Your task to perform on an android device: turn on notifications settings in the gmail app Image 0: 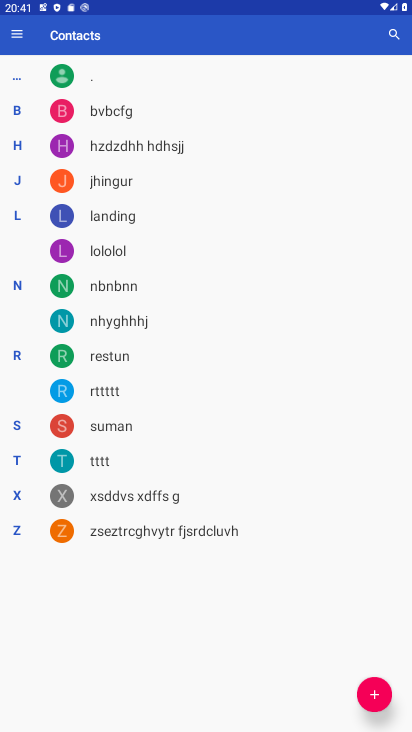
Step 0: press back button
Your task to perform on an android device: turn on notifications settings in the gmail app Image 1: 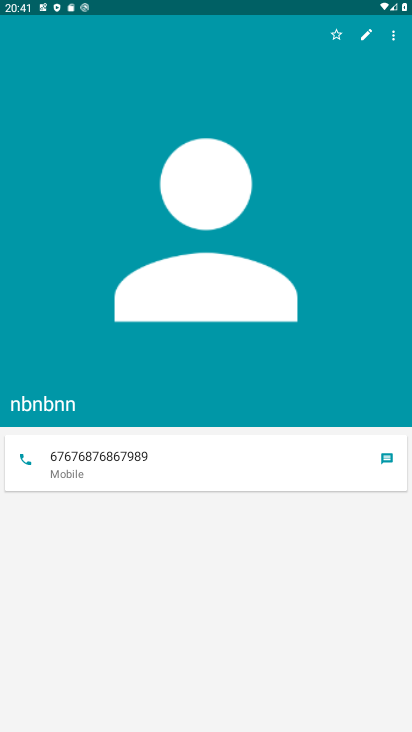
Step 1: press home button
Your task to perform on an android device: turn on notifications settings in the gmail app Image 2: 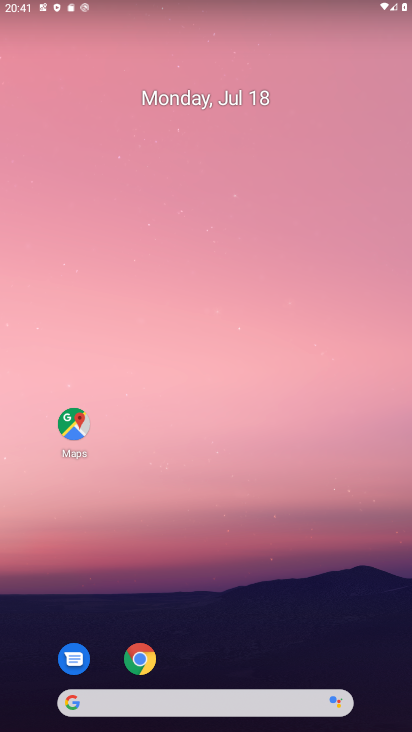
Step 2: drag from (197, 559) to (130, 4)
Your task to perform on an android device: turn on notifications settings in the gmail app Image 3: 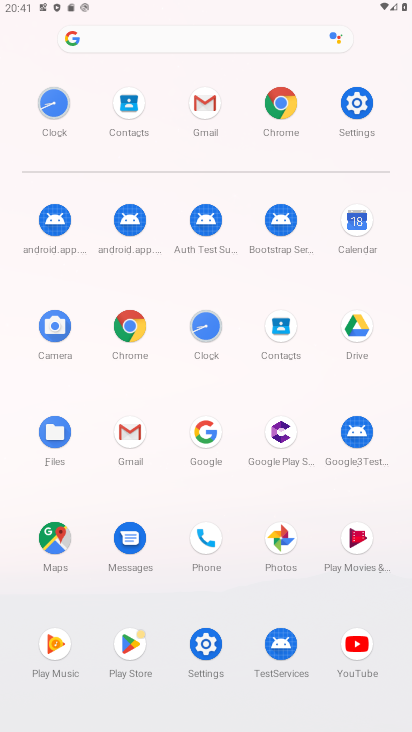
Step 3: click (129, 427)
Your task to perform on an android device: turn on notifications settings in the gmail app Image 4: 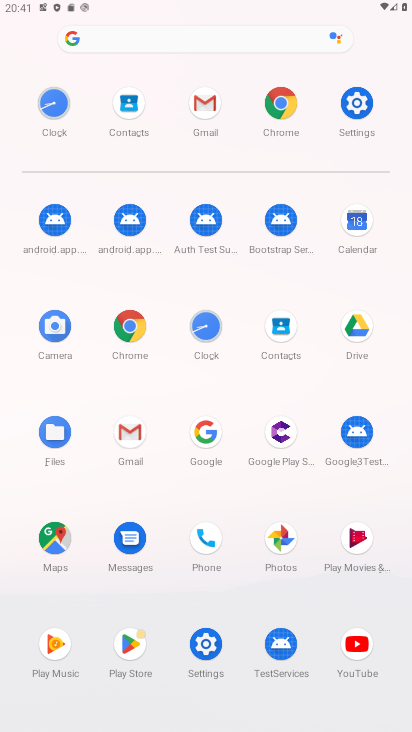
Step 4: click (128, 426)
Your task to perform on an android device: turn on notifications settings in the gmail app Image 5: 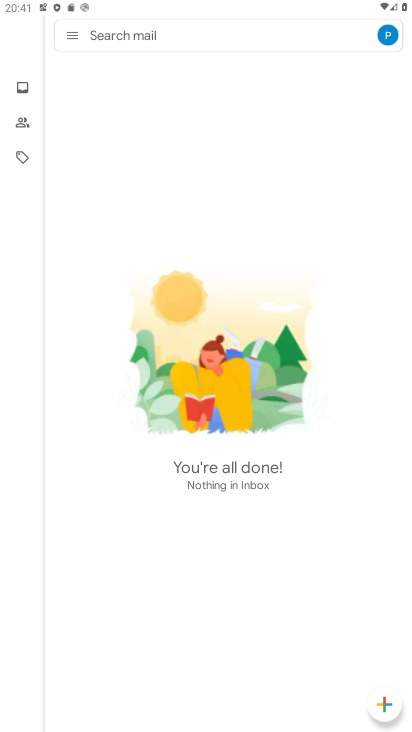
Step 5: click (127, 426)
Your task to perform on an android device: turn on notifications settings in the gmail app Image 6: 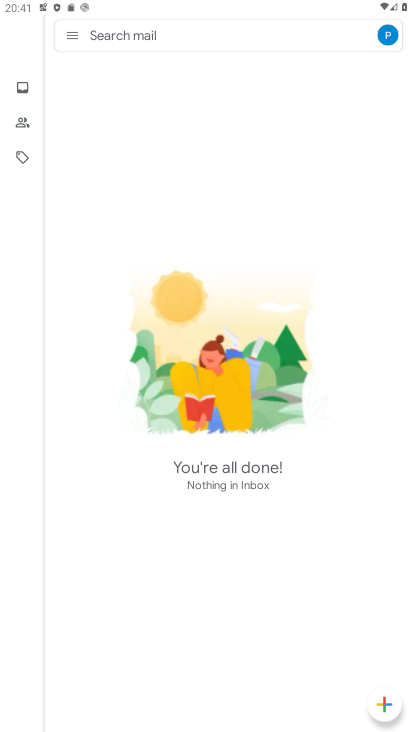
Step 6: click (126, 427)
Your task to perform on an android device: turn on notifications settings in the gmail app Image 7: 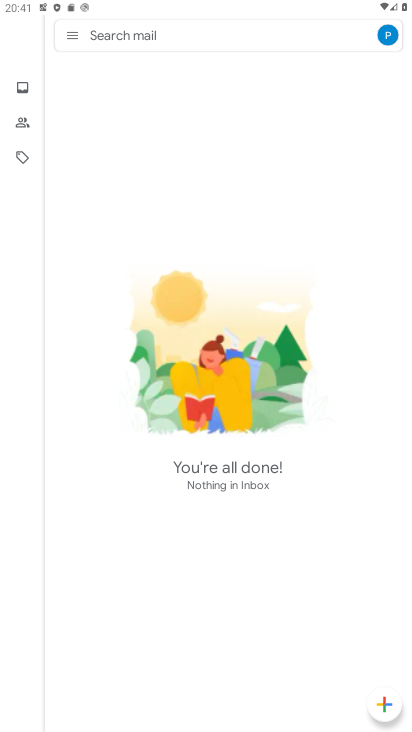
Step 7: drag from (72, 36) to (93, 339)
Your task to perform on an android device: turn on notifications settings in the gmail app Image 8: 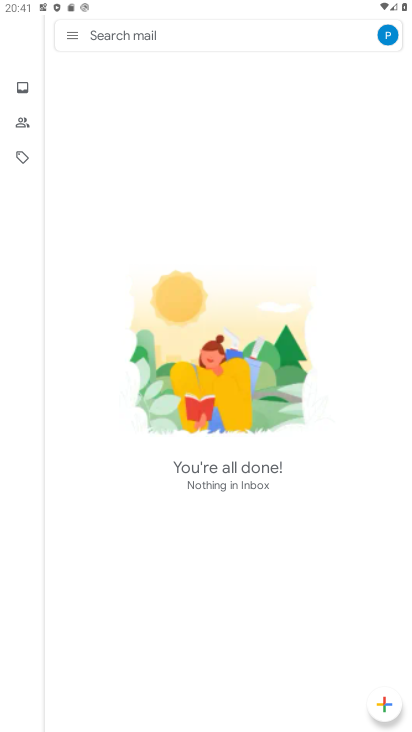
Step 8: drag from (74, 27) to (90, 238)
Your task to perform on an android device: turn on notifications settings in the gmail app Image 9: 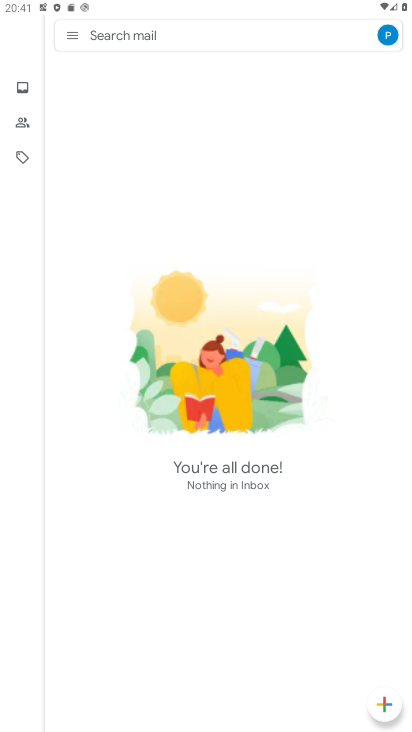
Step 9: click (65, 53)
Your task to perform on an android device: turn on notifications settings in the gmail app Image 10: 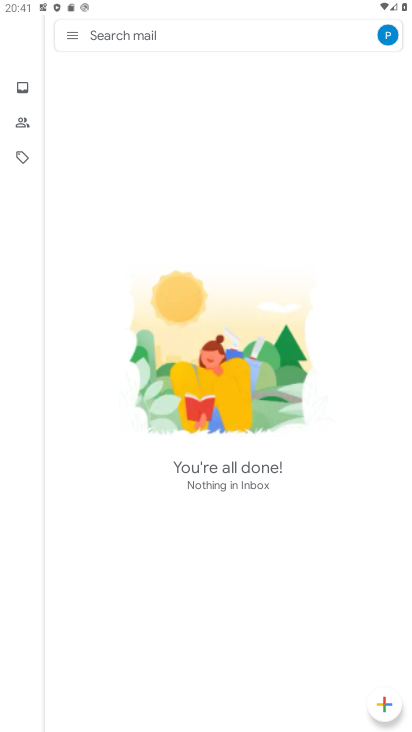
Step 10: click (73, 38)
Your task to perform on an android device: turn on notifications settings in the gmail app Image 11: 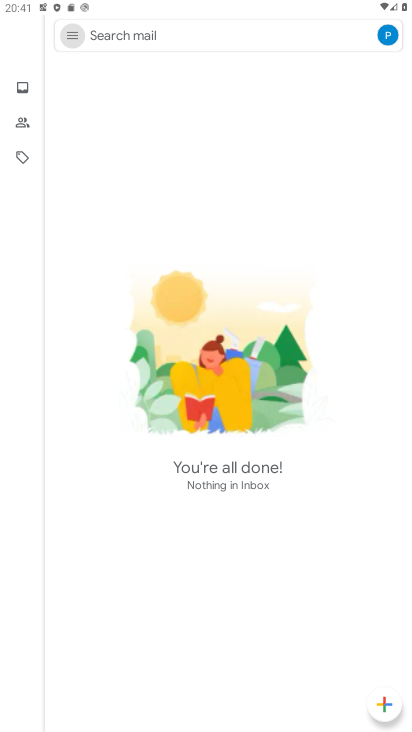
Step 11: click (73, 38)
Your task to perform on an android device: turn on notifications settings in the gmail app Image 12: 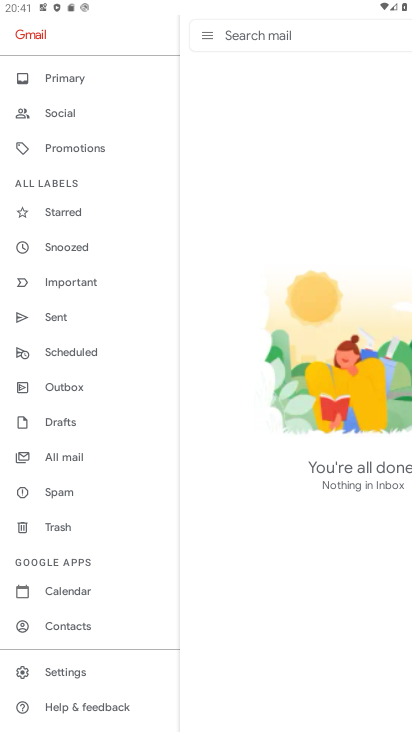
Step 12: click (80, 677)
Your task to perform on an android device: turn on notifications settings in the gmail app Image 13: 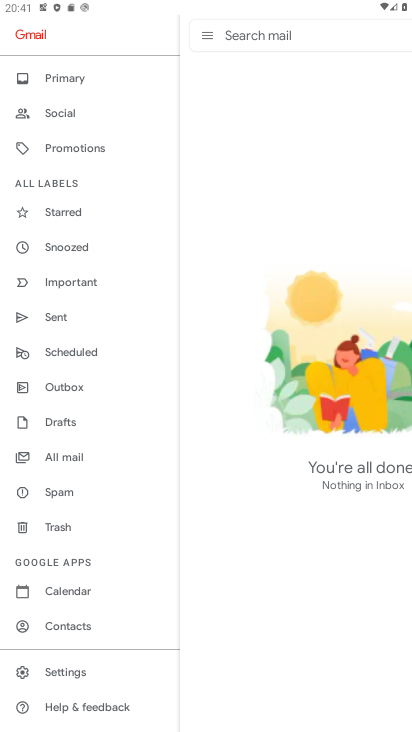
Step 13: click (80, 678)
Your task to perform on an android device: turn on notifications settings in the gmail app Image 14: 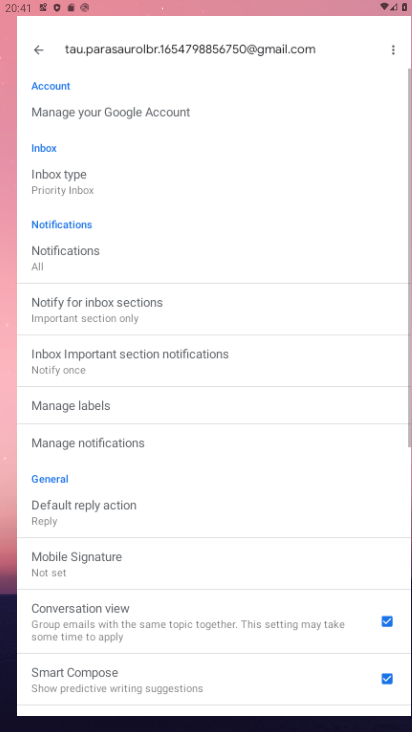
Step 14: click (80, 678)
Your task to perform on an android device: turn on notifications settings in the gmail app Image 15: 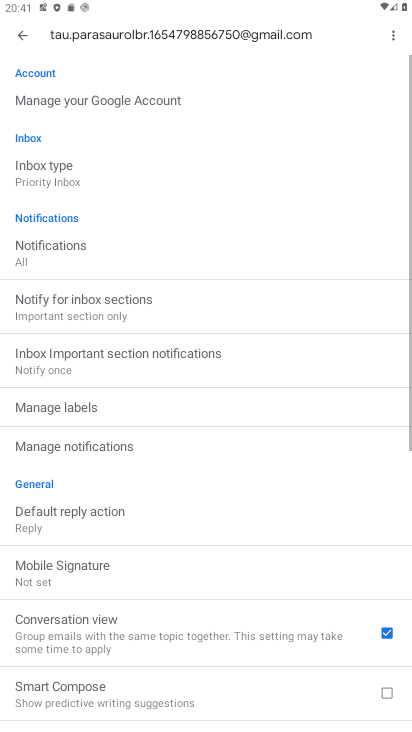
Step 15: drag from (117, 325) to (102, 131)
Your task to perform on an android device: turn on notifications settings in the gmail app Image 16: 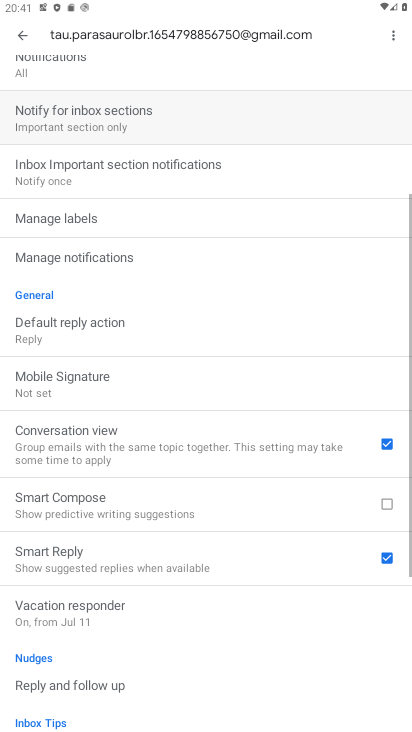
Step 16: drag from (142, 535) to (132, 237)
Your task to perform on an android device: turn on notifications settings in the gmail app Image 17: 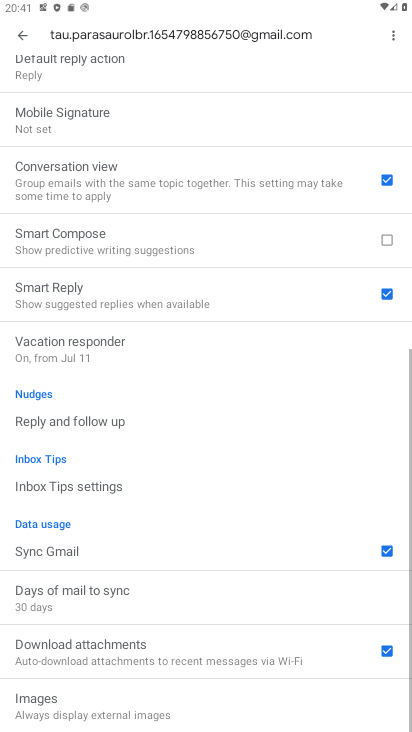
Step 17: drag from (157, 467) to (199, 123)
Your task to perform on an android device: turn on notifications settings in the gmail app Image 18: 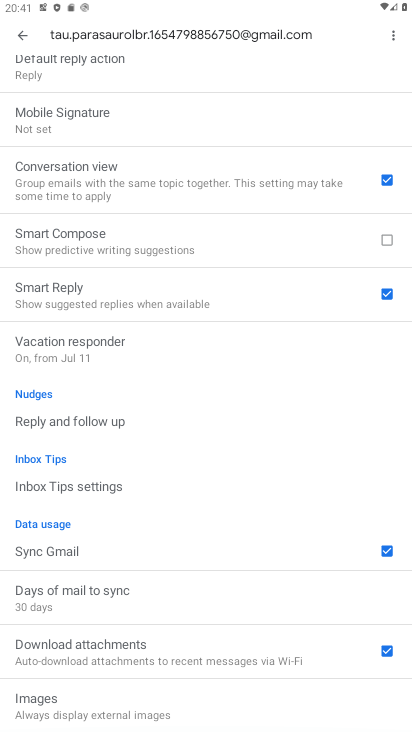
Step 18: drag from (115, 130) to (115, 16)
Your task to perform on an android device: turn on notifications settings in the gmail app Image 19: 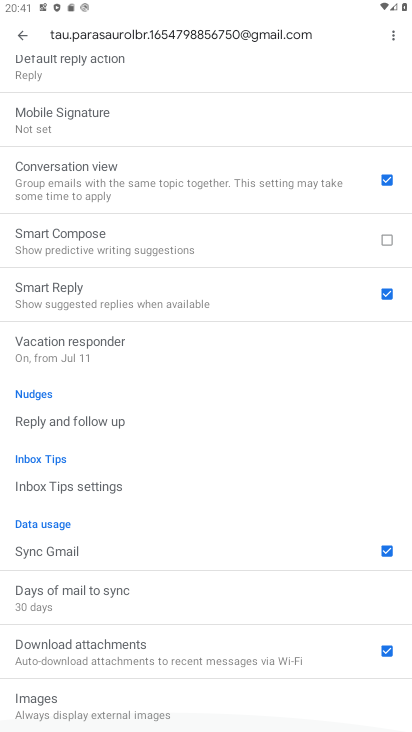
Step 19: drag from (136, 414) to (121, 166)
Your task to perform on an android device: turn on notifications settings in the gmail app Image 20: 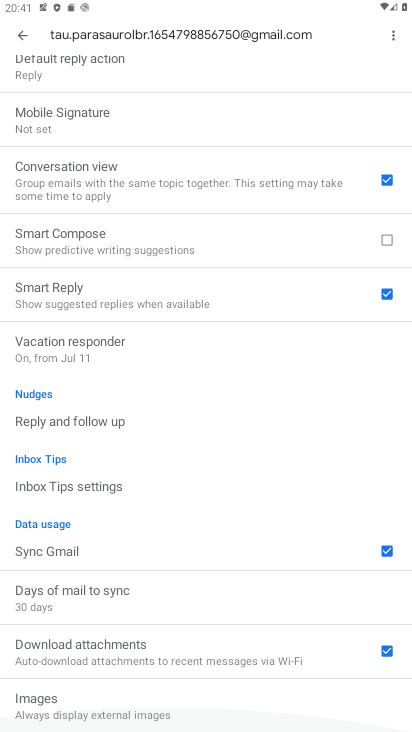
Step 20: drag from (158, 397) to (158, 248)
Your task to perform on an android device: turn on notifications settings in the gmail app Image 21: 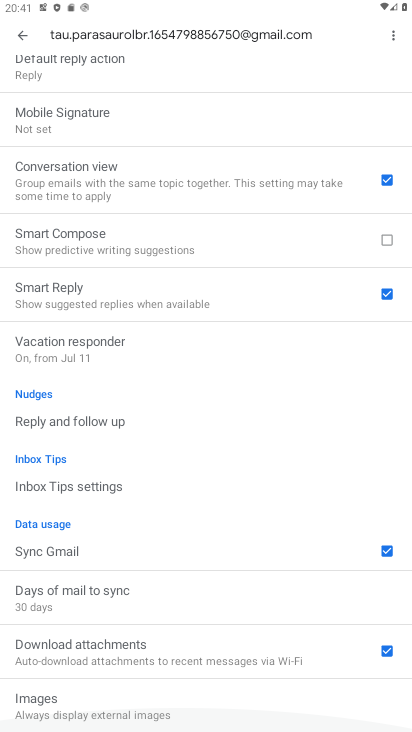
Step 21: drag from (156, 334) to (142, 132)
Your task to perform on an android device: turn on notifications settings in the gmail app Image 22: 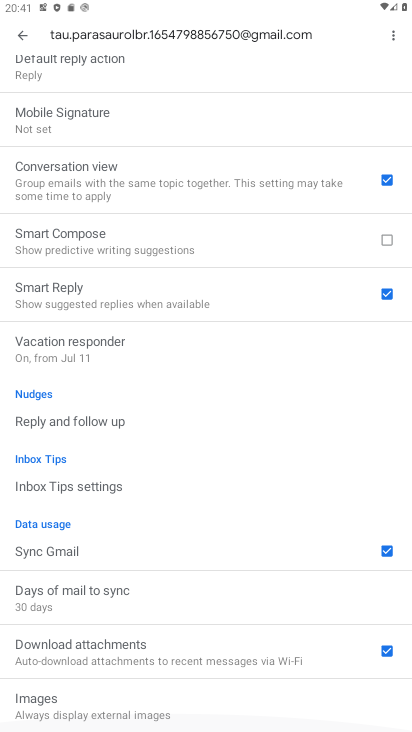
Step 22: drag from (174, 526) to (194, 152)
Your task to perform on an android device: turn on notifications settings in the gmail app Image 23: 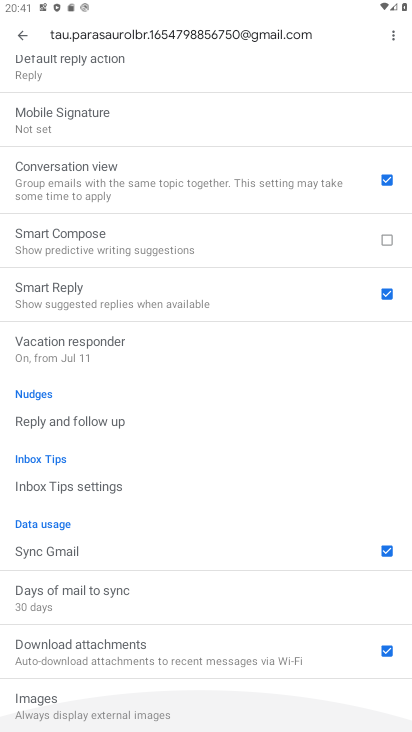
Step 23: drag from (173, 513) to (145, 81)
Your task to perform on an android device: turn on notifications settings in the gmail app Image 24: 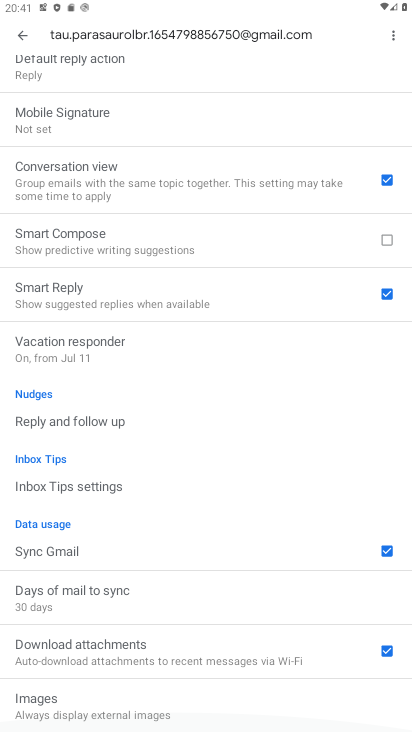
Step 24: drag from (152, 416) to (151, 94)
Your task to perform on an android device: turn on notifications settings in the gmail app Image 25: 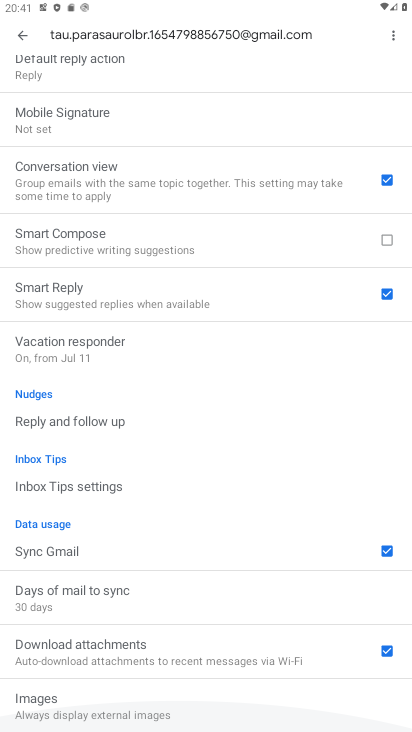
Step 25: drag from (140, 469) to (107, 102)
Your task to perform on an android device: turn on notifications settings in the gmail app Image 26: 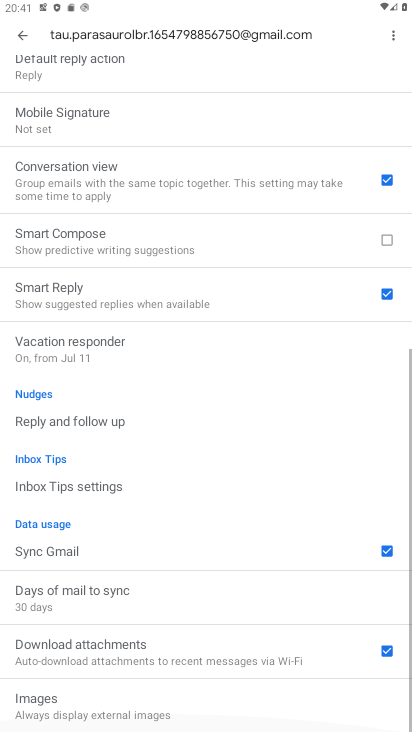
Step 26: drag from (180, 380) to (168, 241)
Your task to perform on an android device: turn on notifications settings in the gmail app Image 27: 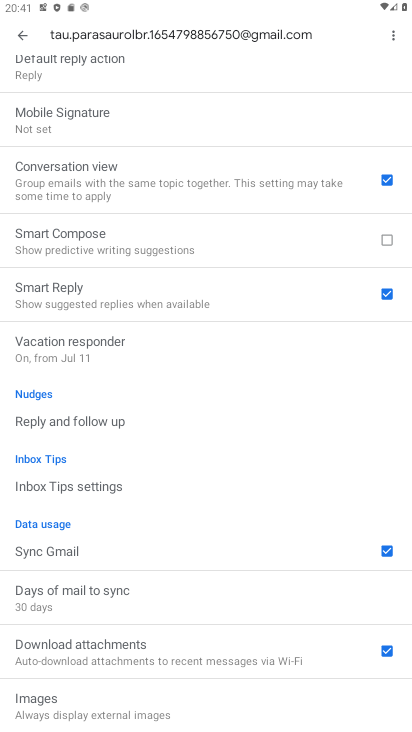
Step 27: drag from (127, 546) to (127, 286)
Your task to perform on an android device: turn on notifications settings in the gmail app Image 28: 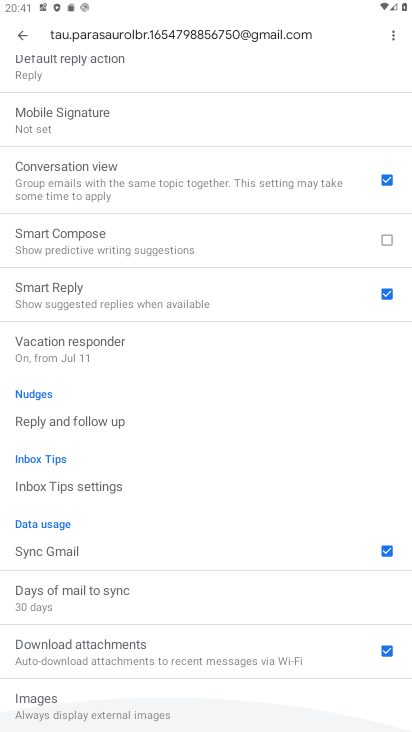
Step 28: drag from (207, 420) to (174, 211)
Your task to perform on an android device: turn on notifications settings in the gmail app Image 29: 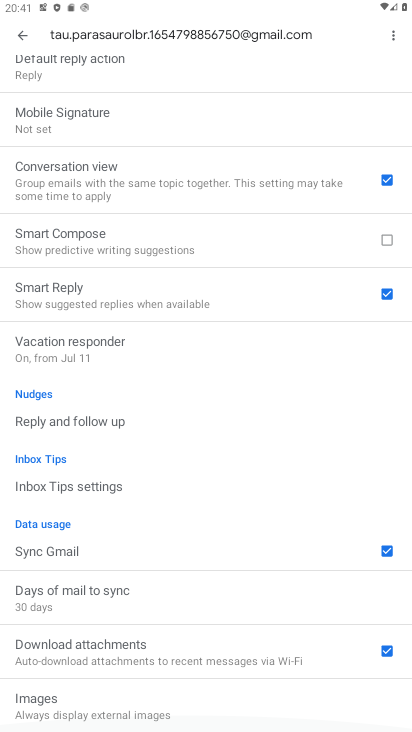
Step 29: drag from (164, 197) to (158, 34)
Your task to perform on an android device: turn on notifications settings in the gmail app Image 30: 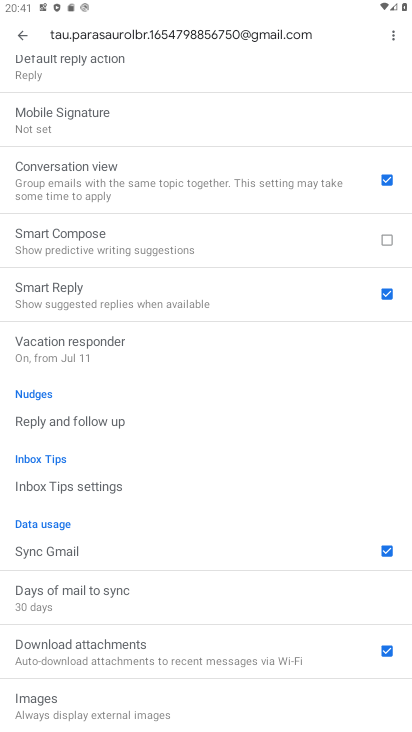
Step 30: drag from (121, 438) to (125, 540)
Your task to perform on an android device: turn on notifications settings in the gmail app Image 31: 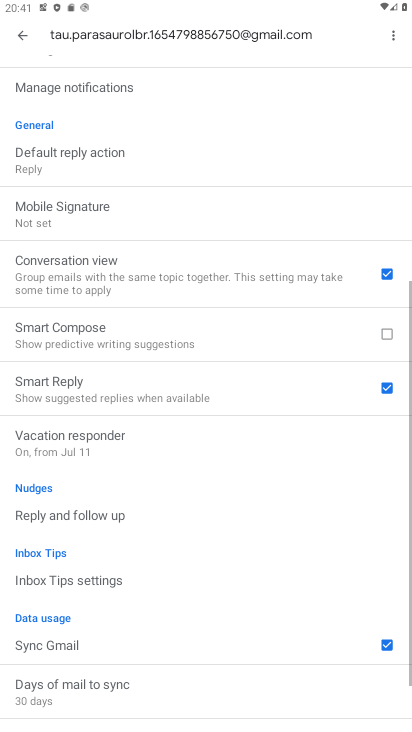
Step 31: drag from (113, 276) to (178, 555)
Your task to perform on an android device: turn on notifications settings in the gmail app Image 32: 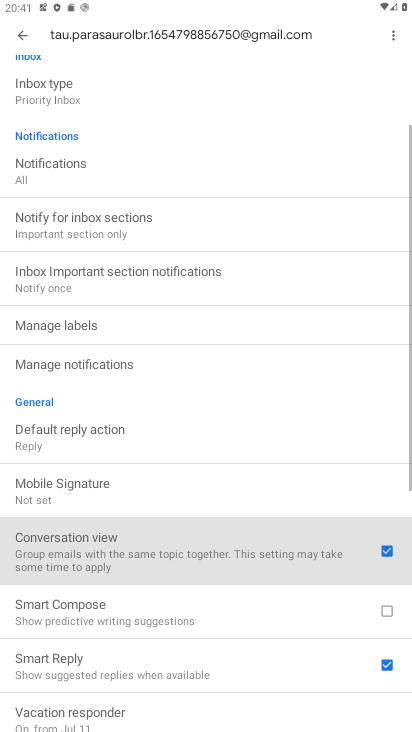
Step 32: drag from (189, 310) to (197, 577)
Your task to perform on an android device: turn on notifications settings in the gmail app Image 33: 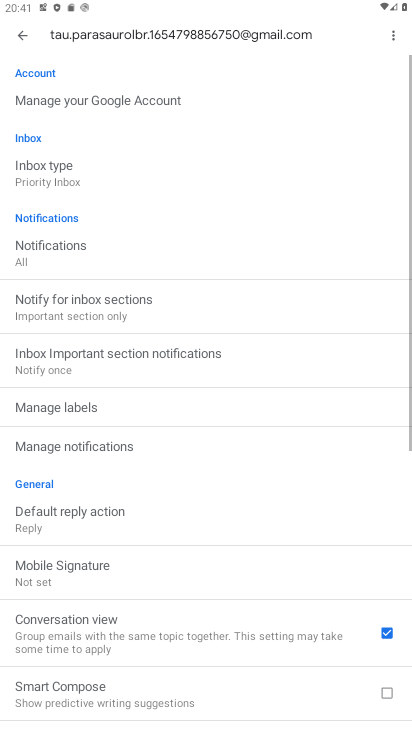
Step 33: drag from (196, 588) to (79, 162)
Your task to perform on an android device: turn on notifications settings in the gmail app Image 34: 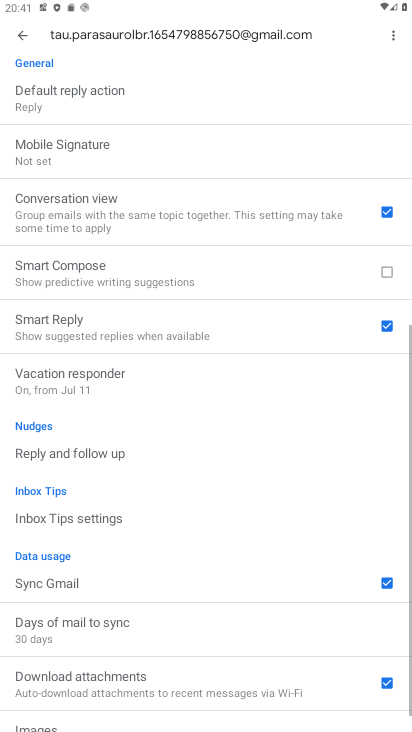
Step 34: drag from (156, 502) to (163, 156)
Your task to perform on an android device: turn on notifications settings in the gmail app Image 35: 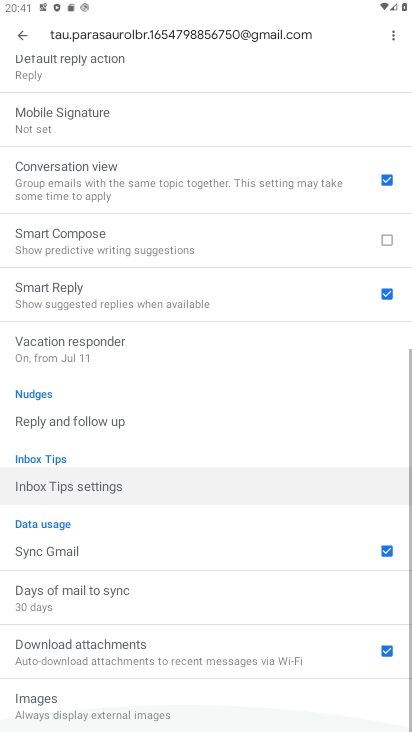
Step 35: drag from (227, 427) to (220, 229)
Your task to perform on an android device: turn on notifications settings in the gmail app Image 36: 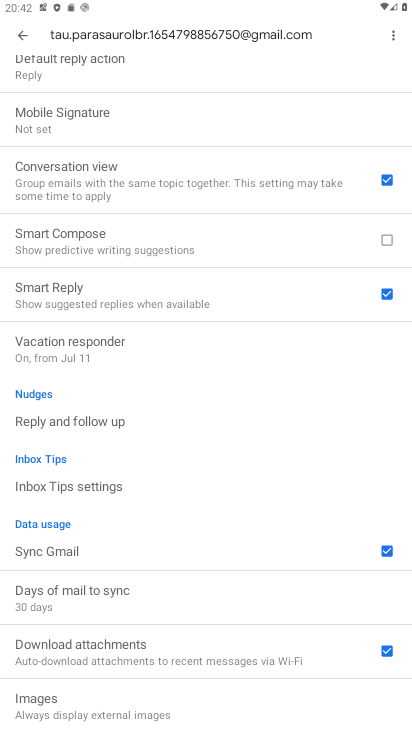
Step 36: drag from (147, 544) to (107, 286)
Your task to perform on an android device: turn on notifications settings in the gmail app Image 37: 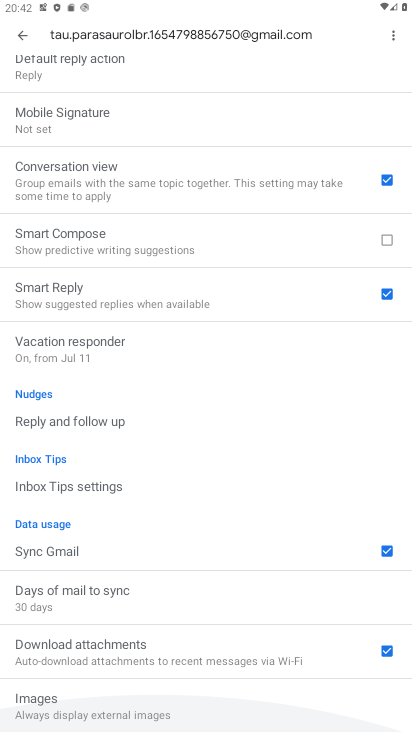
Step 37: drag from (198, 511) to (157, 240)
Your task to perform on an android device: turn on notifications settings in the gmail app Image 38: 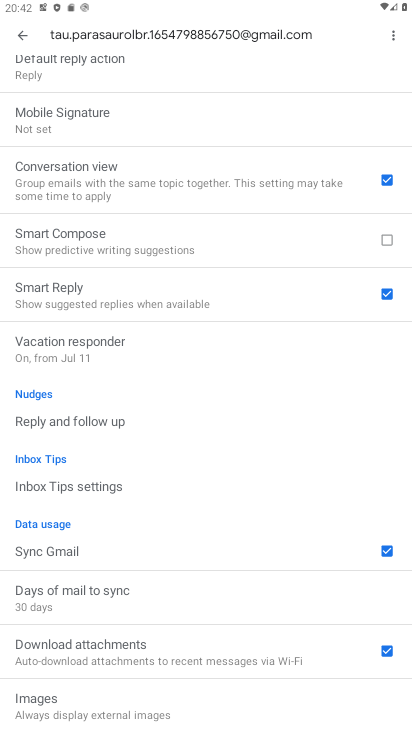
Step 38: drag from (134, 254) to (203, 497)
Your task to perform on an android device: turn on notifications settings in the gmail app Image 39: 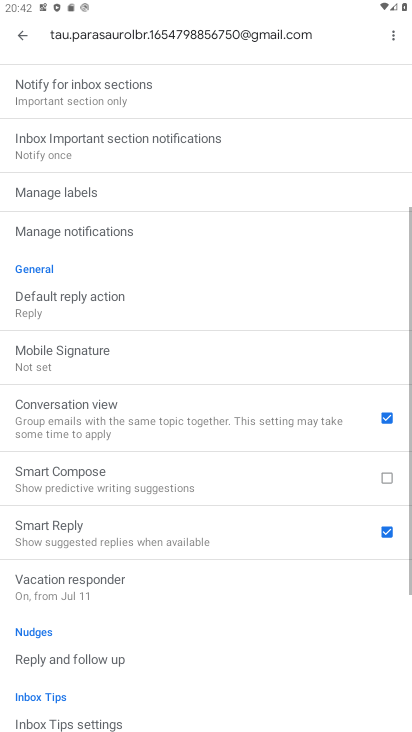
Step 39: drag from (125, 242) to (192, 530)
Your task to perform on an android device: turn on notifications settings in the gmail app Image 40: 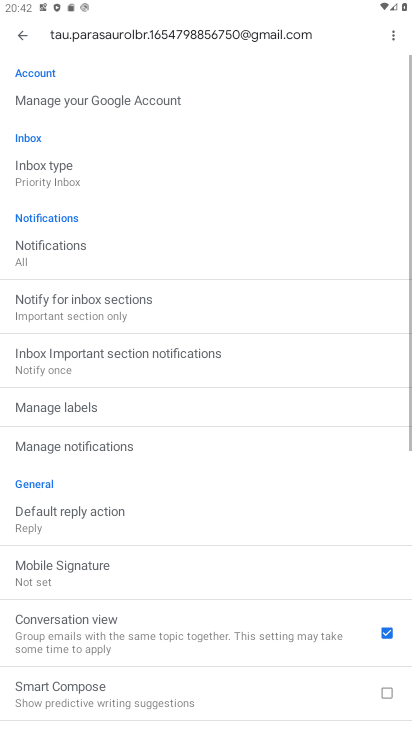
Step 40: drag from (105, 197) to (142, 496)
Your task to perform on an android device: turn on notifications settings in the gmail app Image 41: 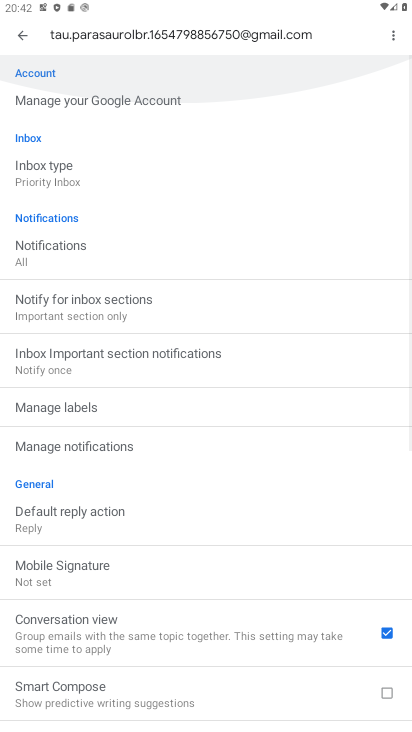
Step 41: drag from (153, 330) to (163, 517)
Your task to perform on an android device: turn on notifications settings in the gmail app Image 42: 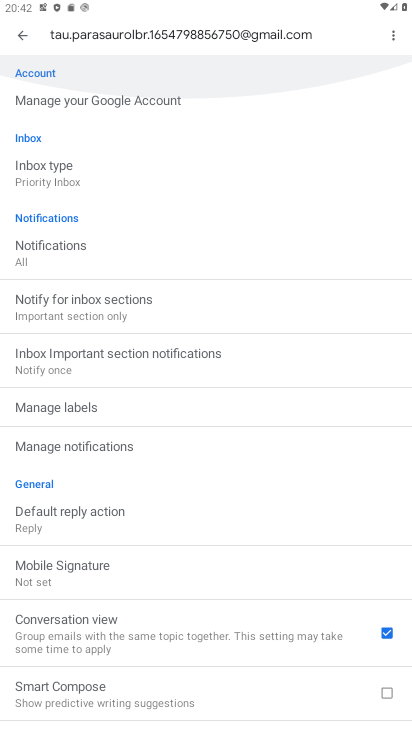
Step 42: drag from (106, 280) to (128, 444)
Your task to perform on an android device: turn on notifications settings in the gmail app Image 43: 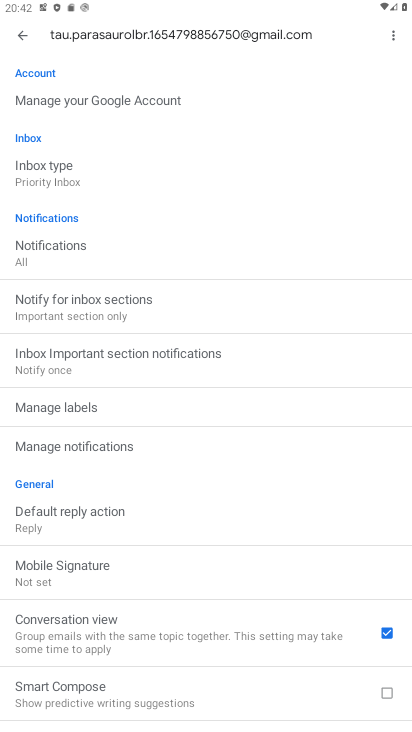
Step 43: click (31, 230)
Your task to perform on an android device: turn on notifications settings in the gmail app Image 44: 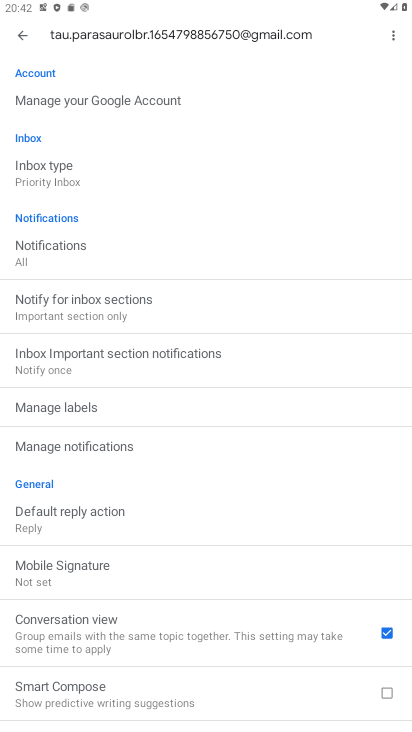
Step 44: click (50, 252)
Your task to perform on an android device: turn on notifications settings in the gmail app Image 45: 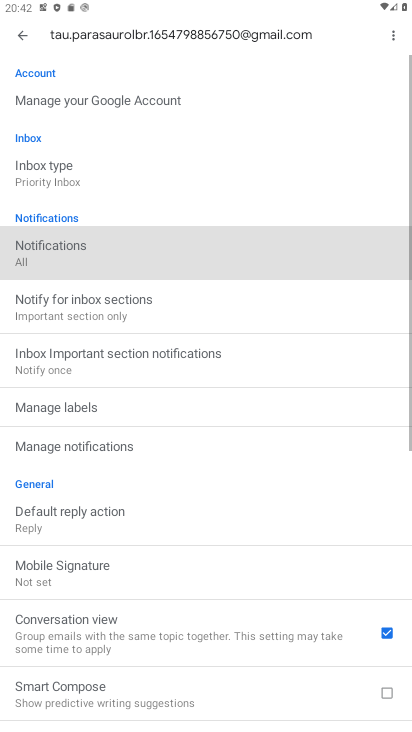
Step 45: click (50, 249)
Your task to perform on an android device: turn on notifications settings in the gmail app Image 46: 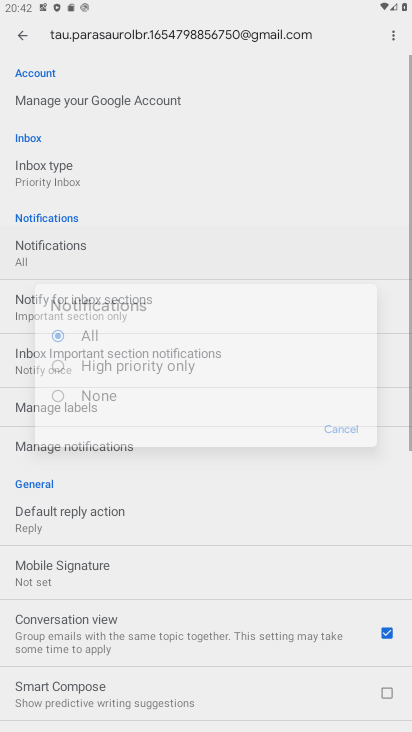
Step 46: click (50, 249)
Your task to perform on an android device: turn on notifications settings in the gmail app Image 47: 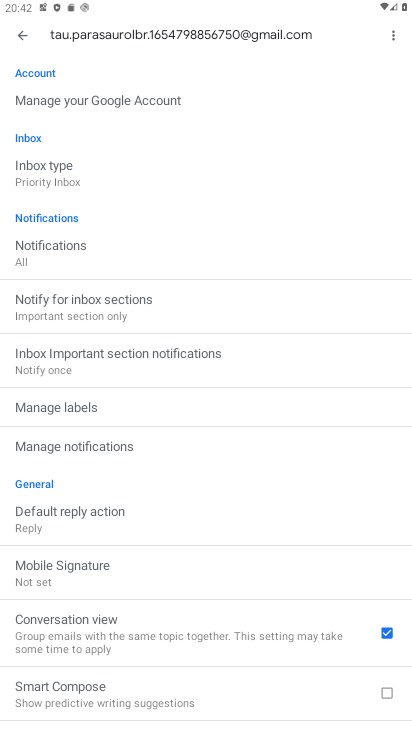
Step 47: click (34, 229)
Your task to perform on an android device: turn on notifications settings in the gmail app Image 48: 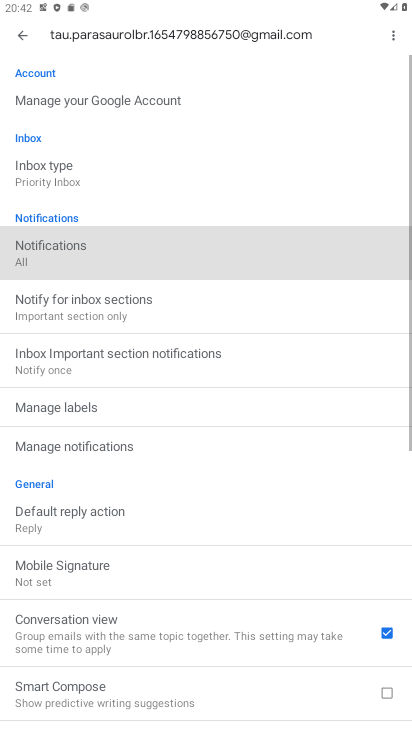
Step 48: click (34, 231)
Your task to perform on an android device: turn on notifications settings in the gmail app Image 49: 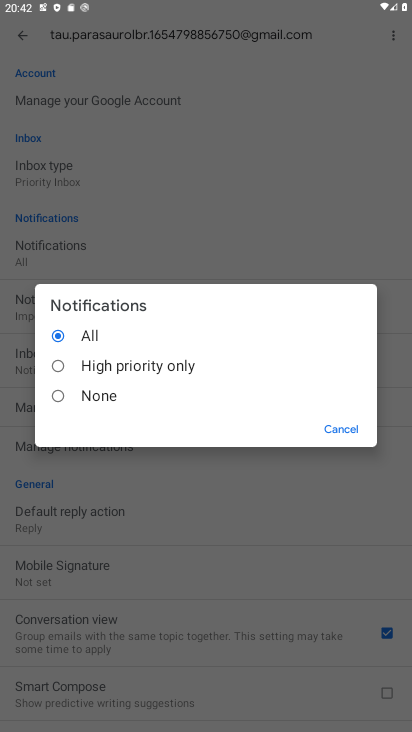
Step 49: click (338, 425)
Your task to perform on an android device: turn on notifications settings in the gmail app Image 50: 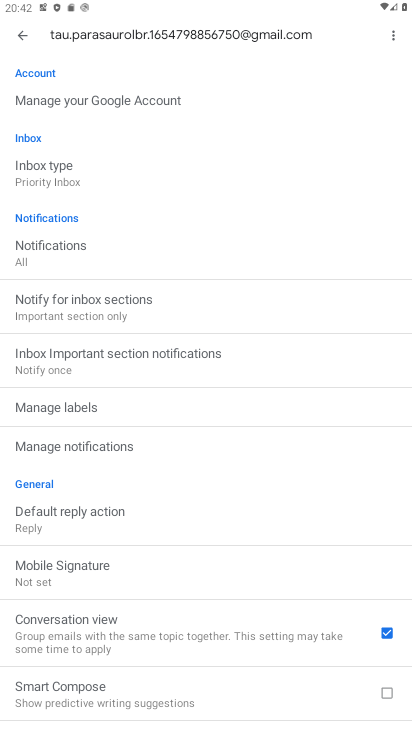
Step 50: task complete